Your task to perform on an android device: see tabs open on other devices in the chrome app Image 0: 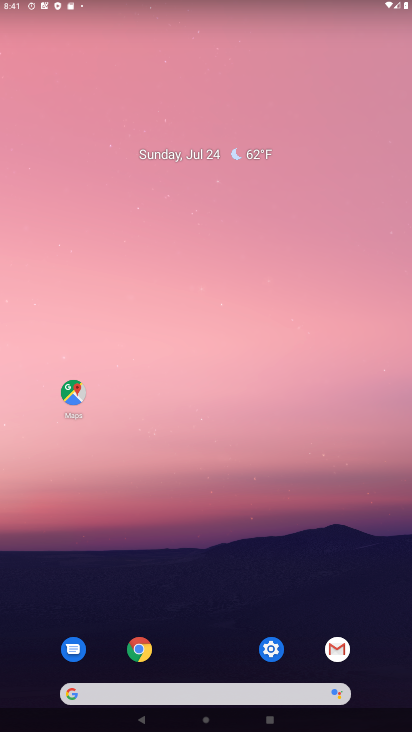
Step 0: click (136, 651)
Your task to perform on an android device: see tabs open on other devices in the chrome app Image 1: 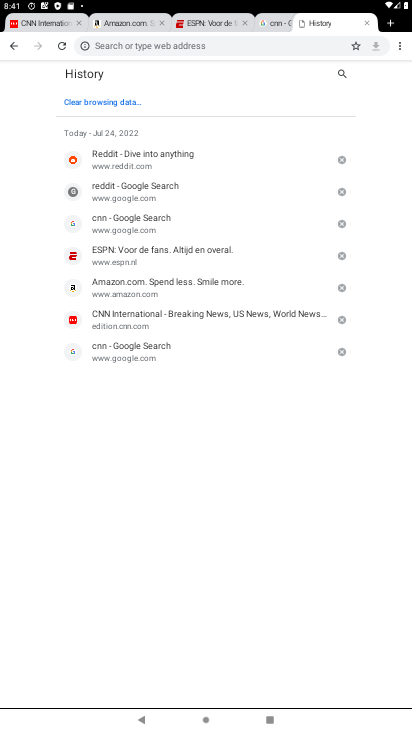
Step 1: click (400, 50)
Your task to perform on an android device: see tabs open on other devices in the chrome app Image 2: 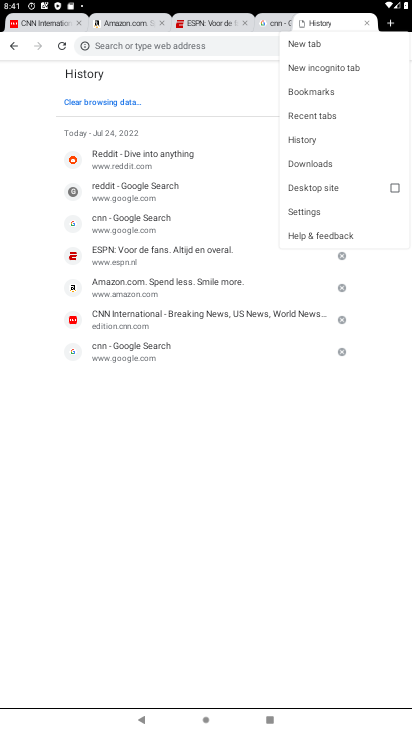
Step 2: click (305, 212)
Your task to perform on an android device: see tabs open on other devices in the chrome app Image 3: 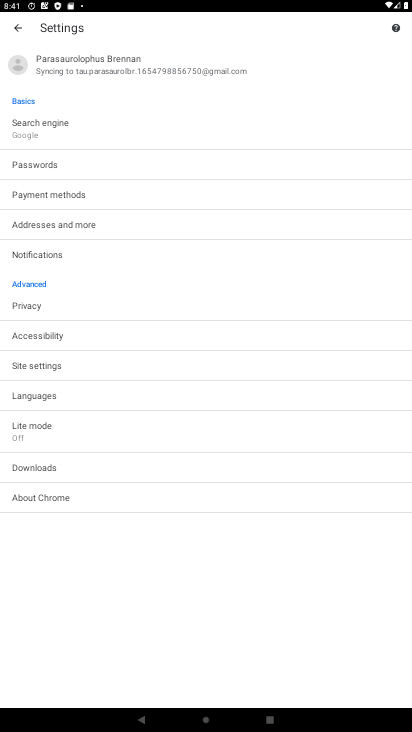
Step 3: click (24, 34)
Your task to perform on an android device: see tabs open on other devices in the chrome app Image 4: 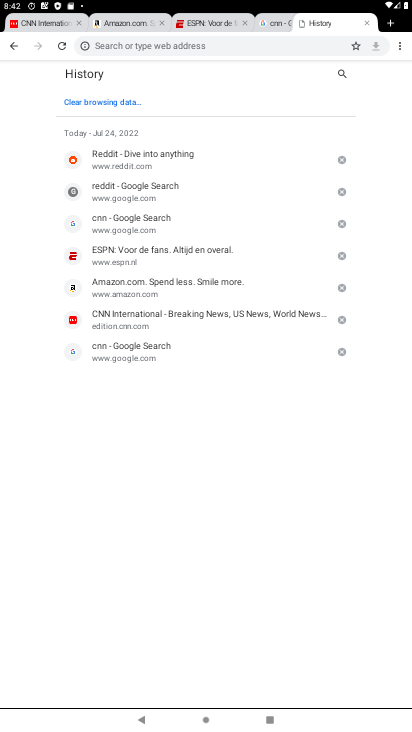
Step 4: click (391, 23)
Your task to perform on an android device: see tabs open on other devices in the chrome app Image 5: 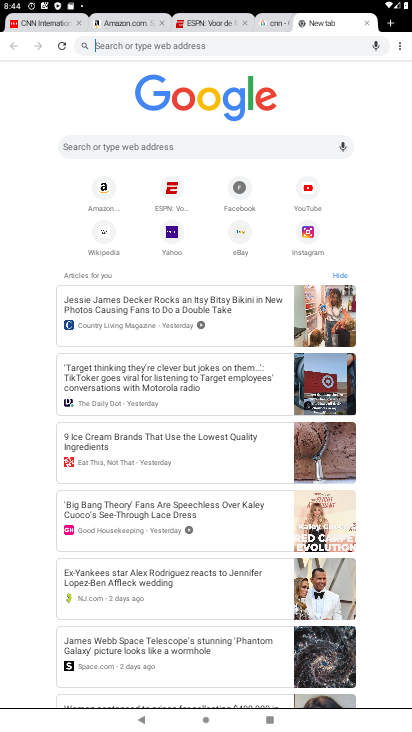
Step 5: task complete